Your task to perform on an android device: Go to location settings Image 0: 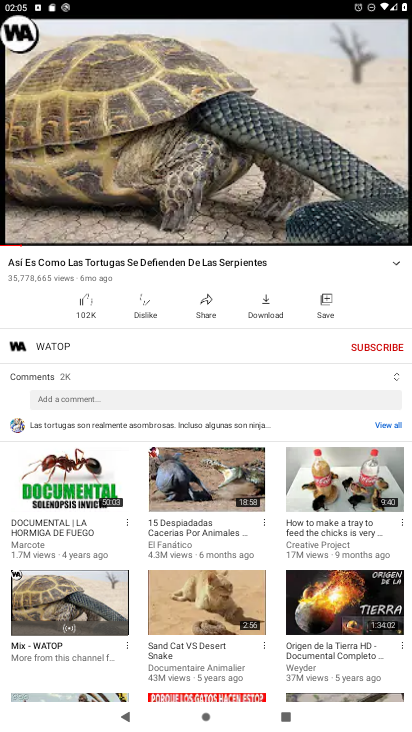
Step 0: press home button
Your task to perform on an android device: Go to location settings Image 1: 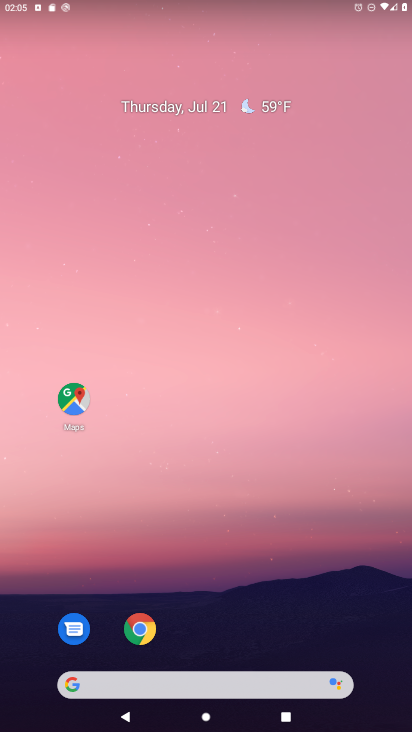
Step 1: drag from (368, 666) to (350, 87)
Your task to perform on an android device: Go to location settings Image 2: 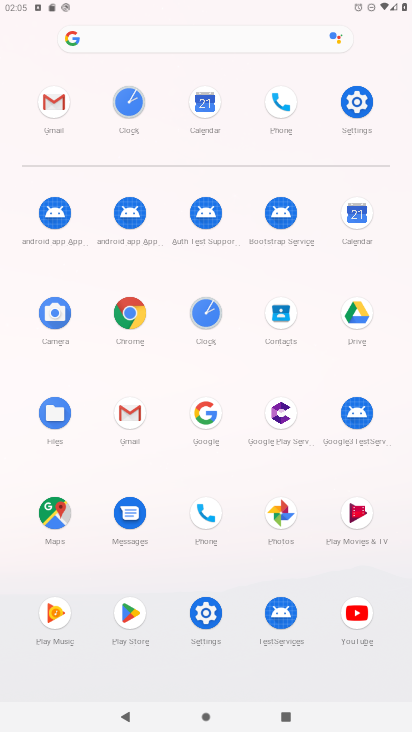
Step 2: click (205, 612)
Your task to perform on an android device: Go to location settings Image 3: 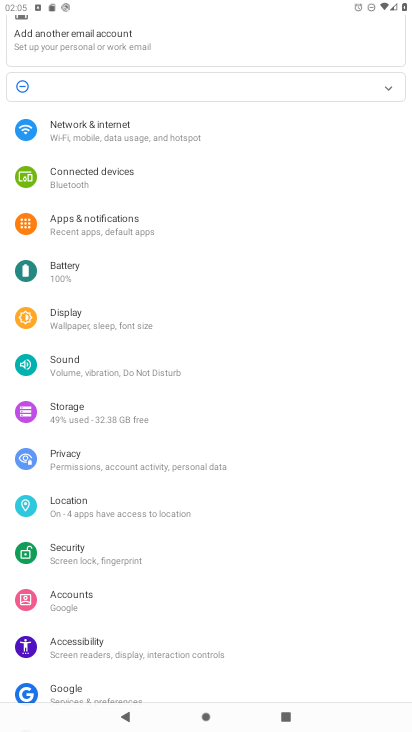
Step 3: click (76, 501)
Your task to perform on an android device: Go to location settings Image 4: 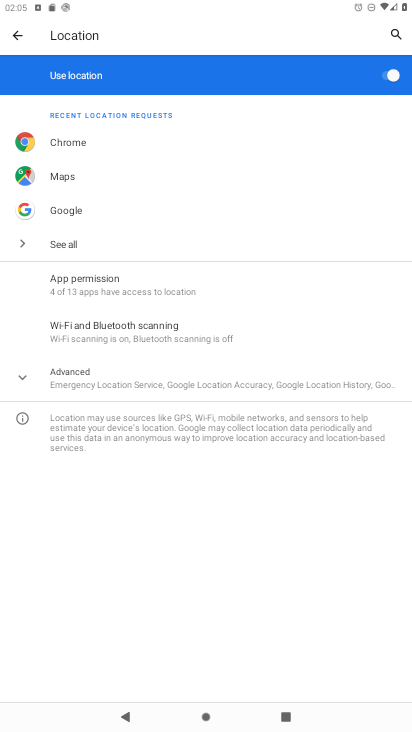
Step 4: task complete